Your task to perform on an android device: allow notifications from all sites in the chrome app Image 0: 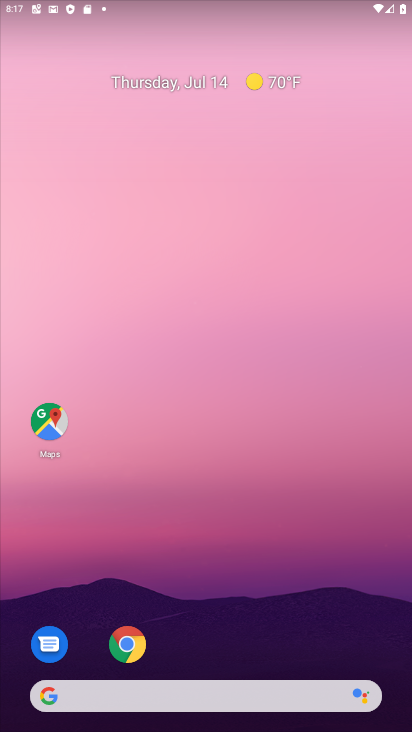
Step 0: drag from (267, 594) to (253, 105)
Your task to perform on an android device: allow notifications from all sites in the chrome app Image 1: 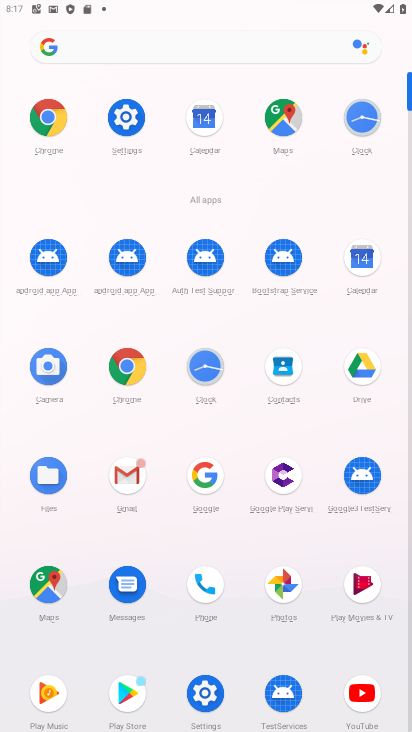
Step 1: click (58, 112)
Your task to perform on an android device: allow notifications from all sites in the chrome app Image 2: 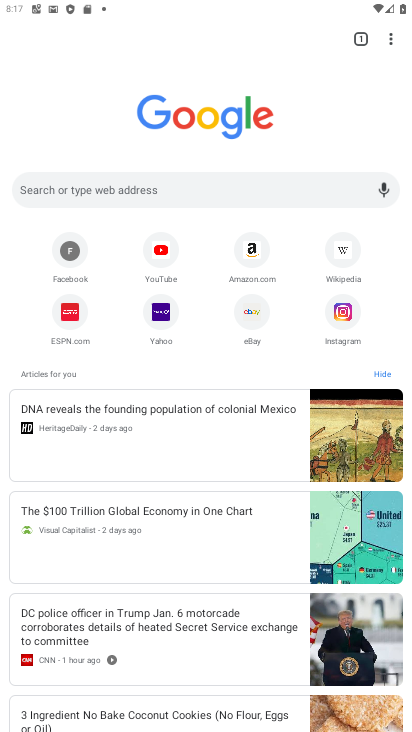
Step 2: click (401, 36)
Your task to perform on an android device: allow notifications from all sites in the chrome app Image 3: 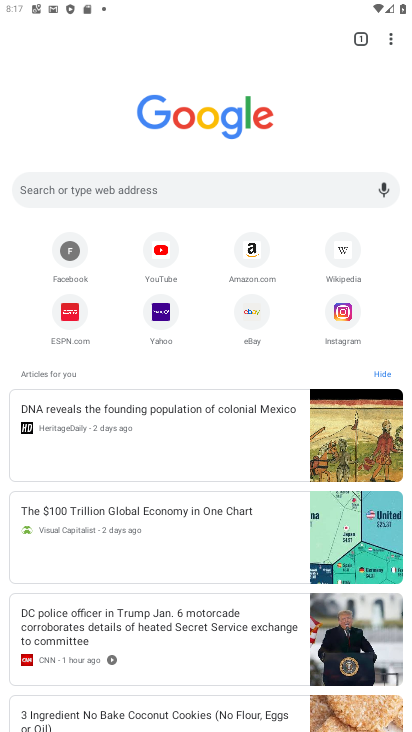
Step 3: click (389, 33)
Your task to perform on an android device: allow notifications from all sites in the chrome app Image 4: 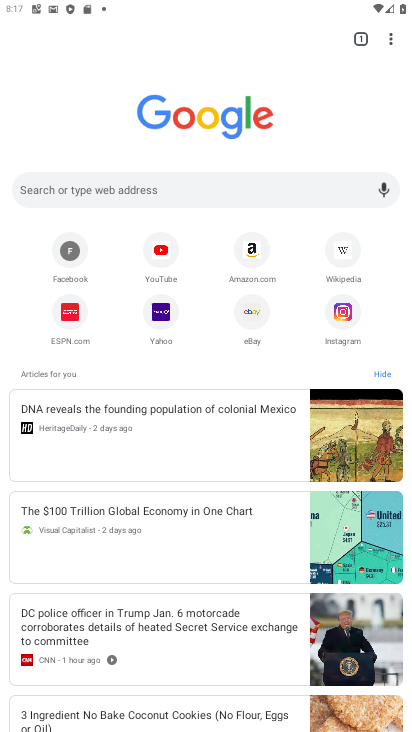
Step 4: click (389, 33)
Your task to perform on an android device: allow notifications from all sites in the chrome app Image 5: 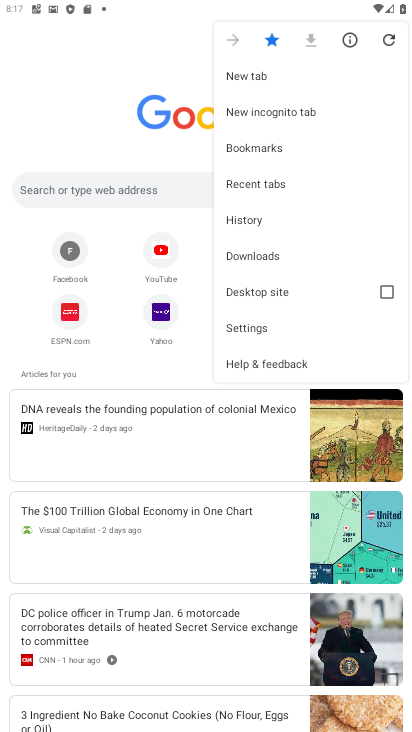
Step 5: click (280, 327)
Your task to perform on an android device: allow notifications from all sites in the chrome app Image 6: 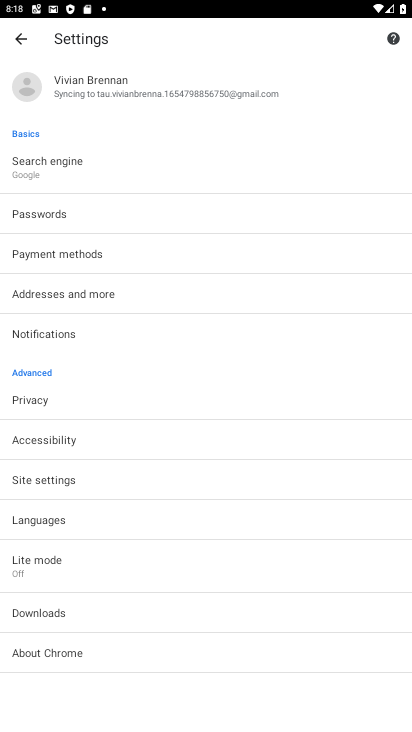
Step 6: drag from (123, 384) to (164, 120)
Your task to perform on an android device: allow notifications from all sites in the chrome app Image 7: 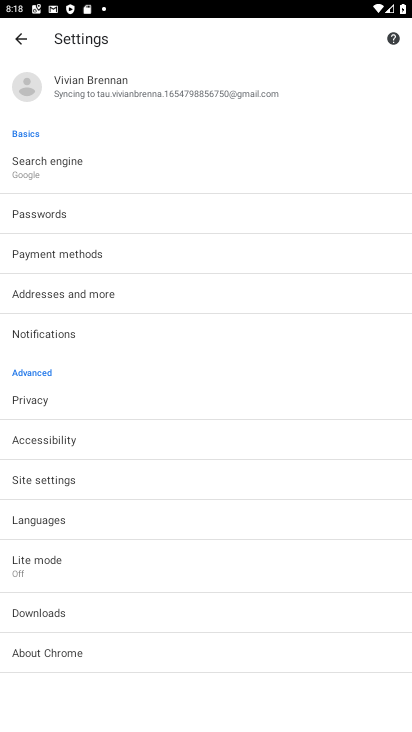
Step 7: click (62, 475)
Your task to perform on an android device: allow notifications from all sites in the chrome app Image 8: 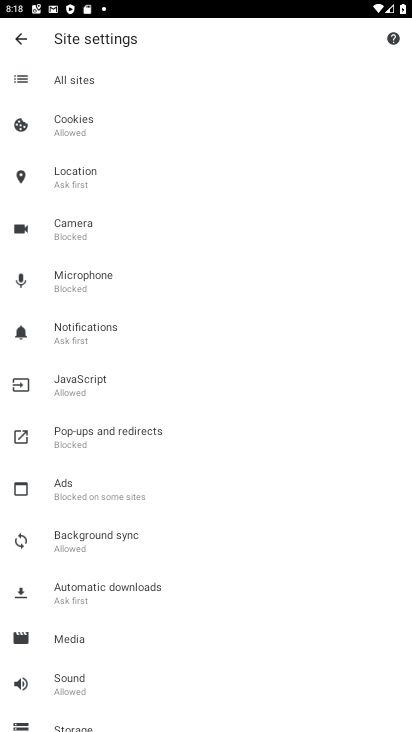
Step 8: click (69, 93)
Your task to perform on an android device: allow notifications from all sites in the chrome app Image 9: 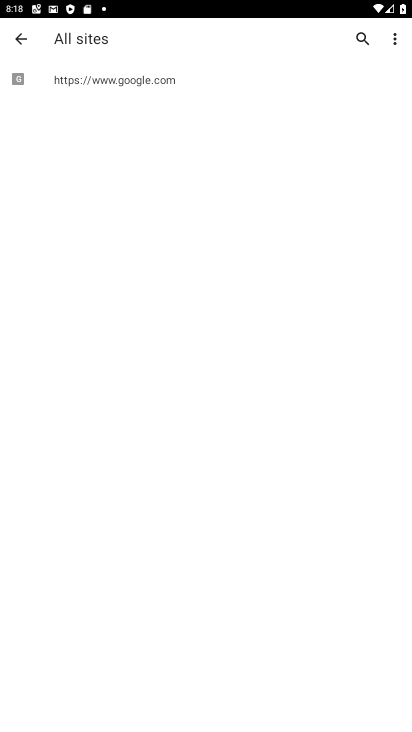
Step 9: click (5, 25)
Your task to perform on an android device: allow notifications from all sites in the chrome app Image 10: 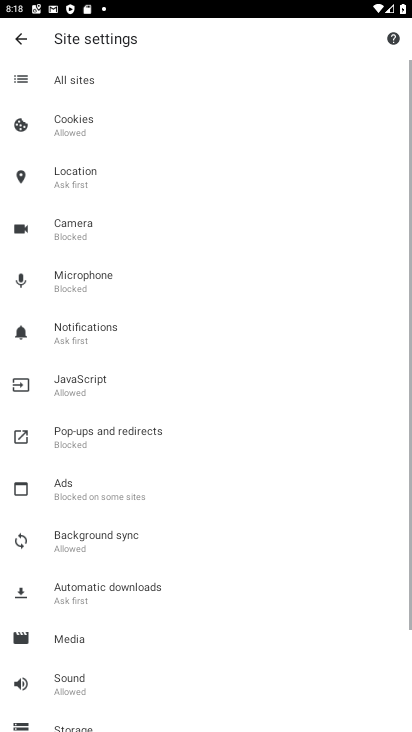
Step 10: click (105, 168)
Your task to perform on an android device: allow notifications from all sites in the chrome app Image 11: 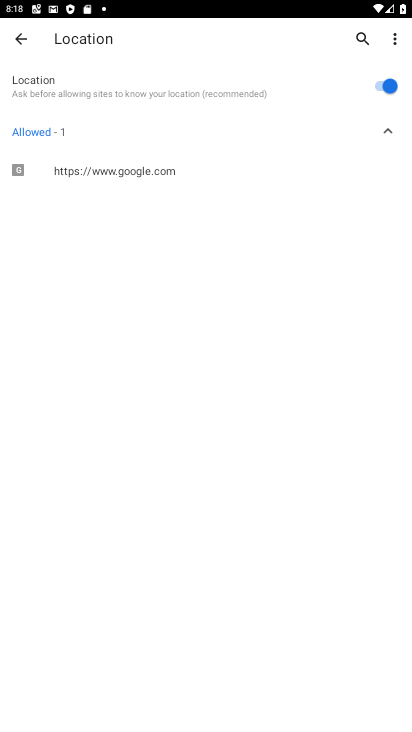
Step 11: click (31, 40)
Your task to perform on an android device: allow notifications from all sites in the chrome app Image 12: 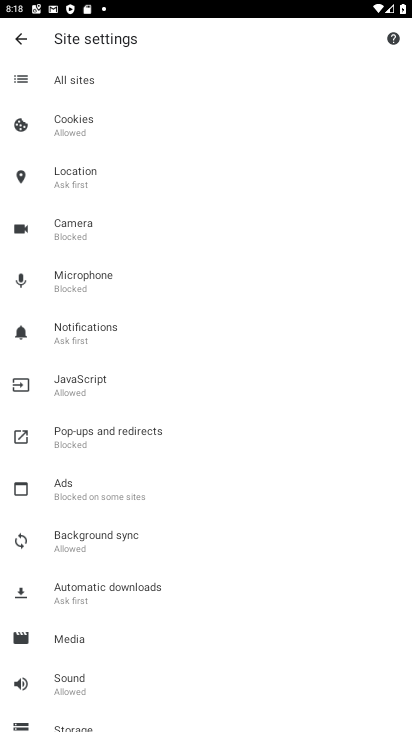
Step 12: click (84, 181)
Your task to perform on an android device: allow notifications from all sites in the chrome app Image 13: 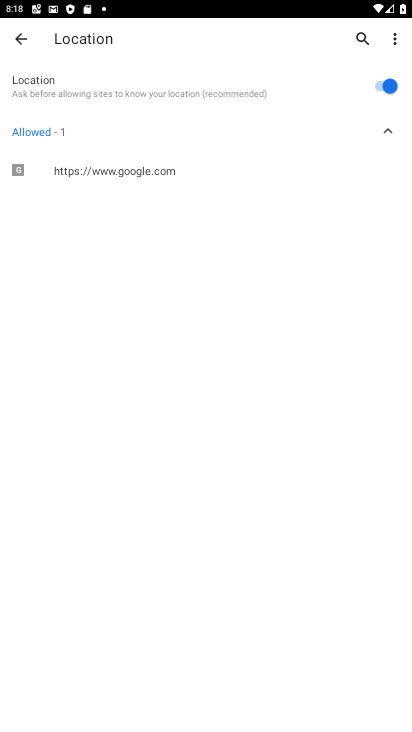
Step 13: click (23, 37)
Your task to perform on an android device: allow notifications from all sites in the chrome app Image 14: 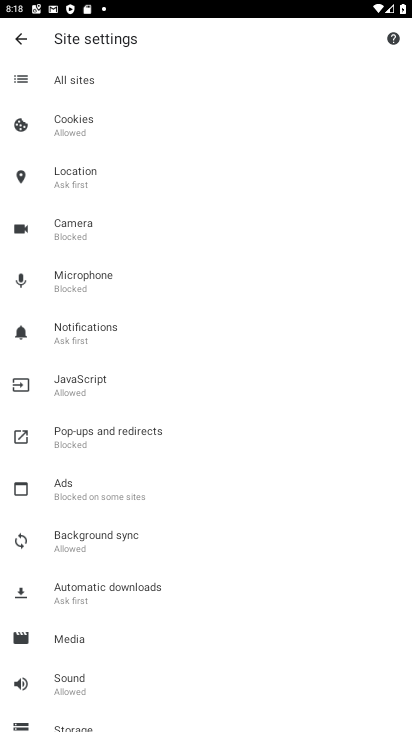
Step 14: click (87, 296)
Your task to perform on an android device: allow notifications from all sites in the chrome app Image 15: 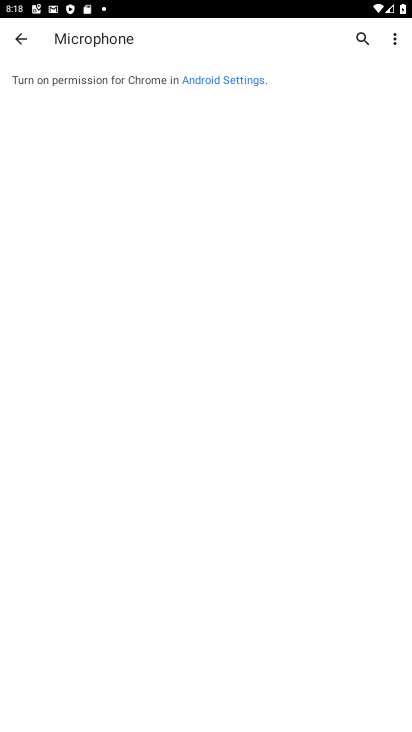
Step 15: click (31, 53)
Your task to perform on an android device: allow notifications from all sites in the chrome app Image 16: 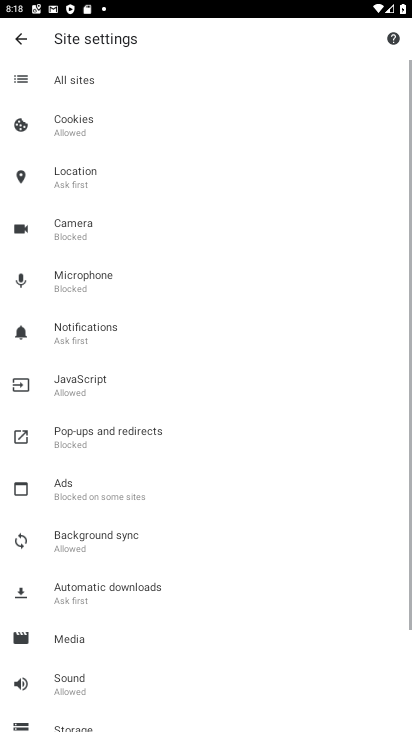
Step 16: click (85, 373)
Your task to perform on an android device: allow notifications from all sites in the chrome app Image 17: 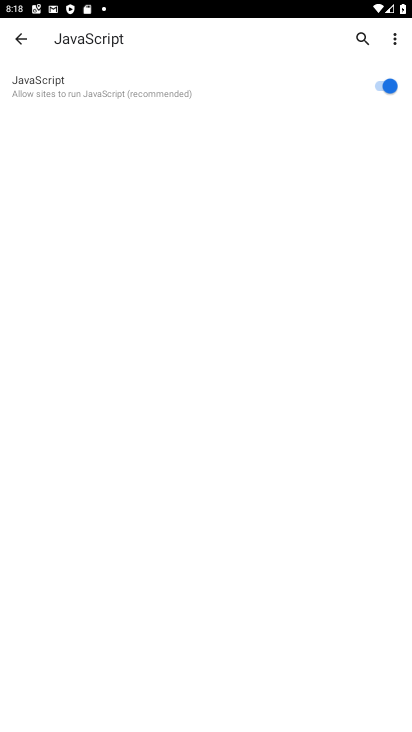
Step 17: click (9, 38)
Your task to perform on an android device: allow notifications from all sites in the chrome app Image 18: 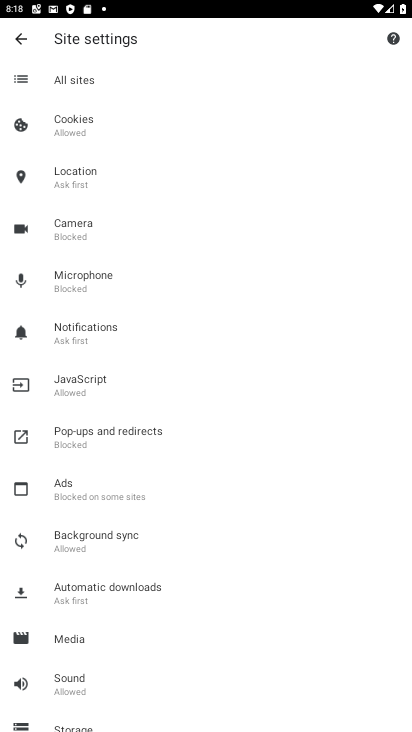
Step 18: task complete